Your task to perform on an android device: open chrome privacy settings Image 0: 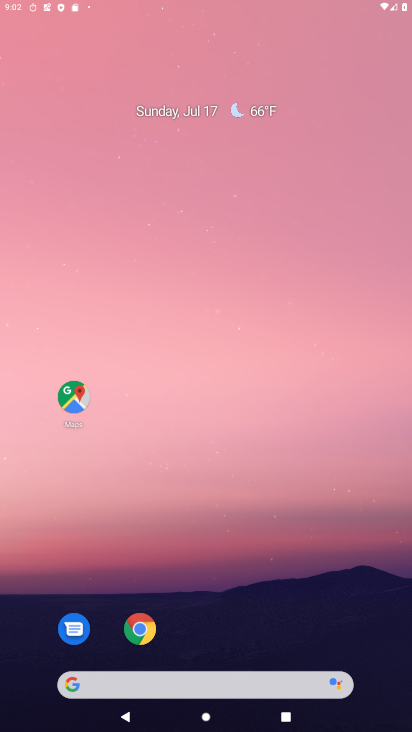
Step 0: press home button
Your task to perform on an android device: open chrome privacy settings Image 1: 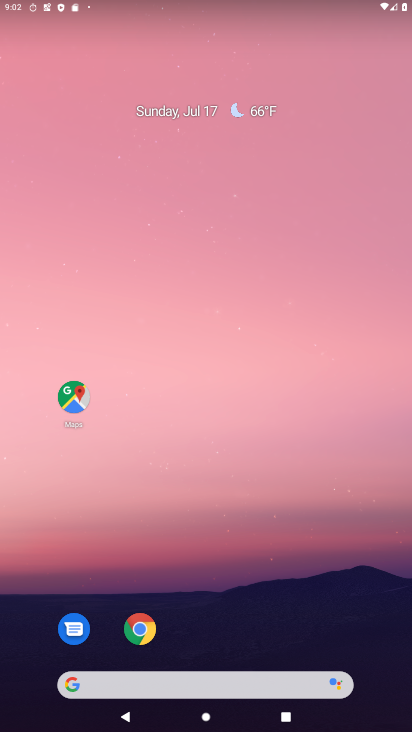
Step 1: click (138, 623)
Your task to perform on an android device: open chrome privacy settings Image 2: 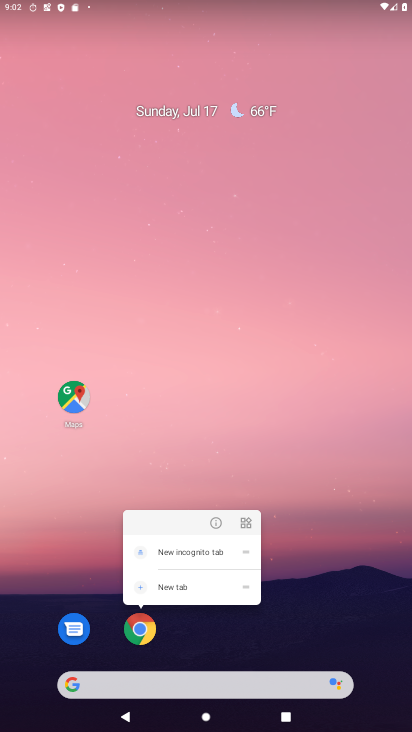
Step 2: click (137, 623)
Your task to perform on an android device: open chrome privacy settings Image 3: 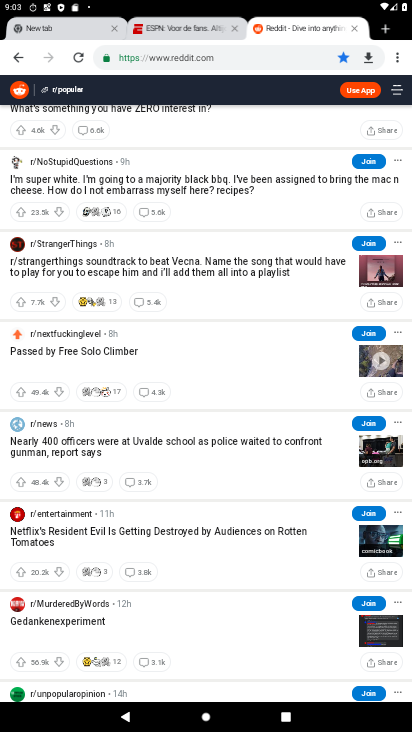
Step 3: click (404, 61)
Your task to perform on an android device: open chrome privacy settings Image 4: 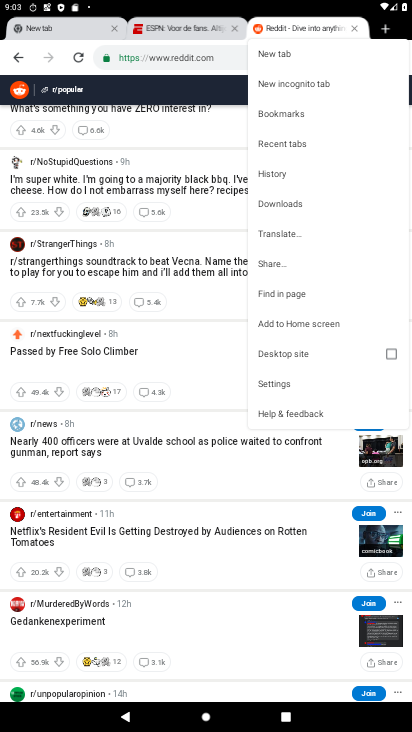
Step 4: click (306, 379)
Your task to perform on an android device: open chrome privacy settings Image 5: 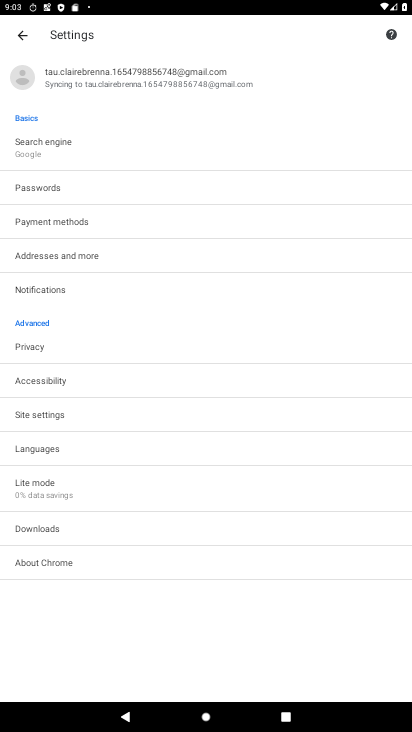
Step 5: click (48, 344)
Your task to perform on an android device: open chrome privacy settings Image 6: 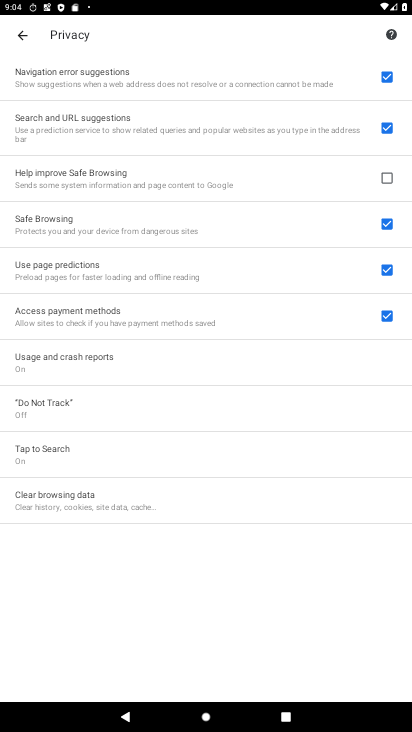
Step 6: task complete